Your task to perform on an android device: turn off smart reply in the gmail app Image 0: 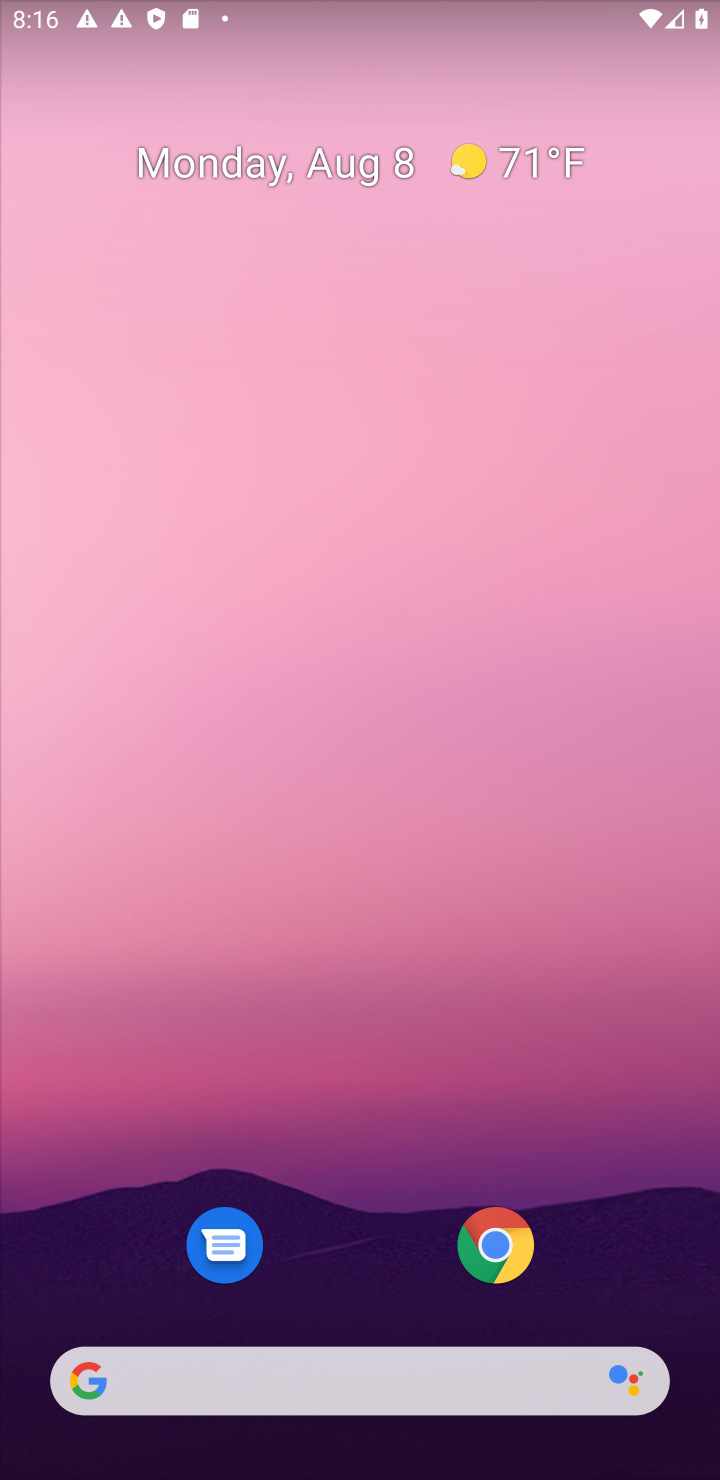
Step 0: drag from (285, 601) to (484, 22)
Your task to perform on an android device: turn off smart reply in the gmail app Image 1: 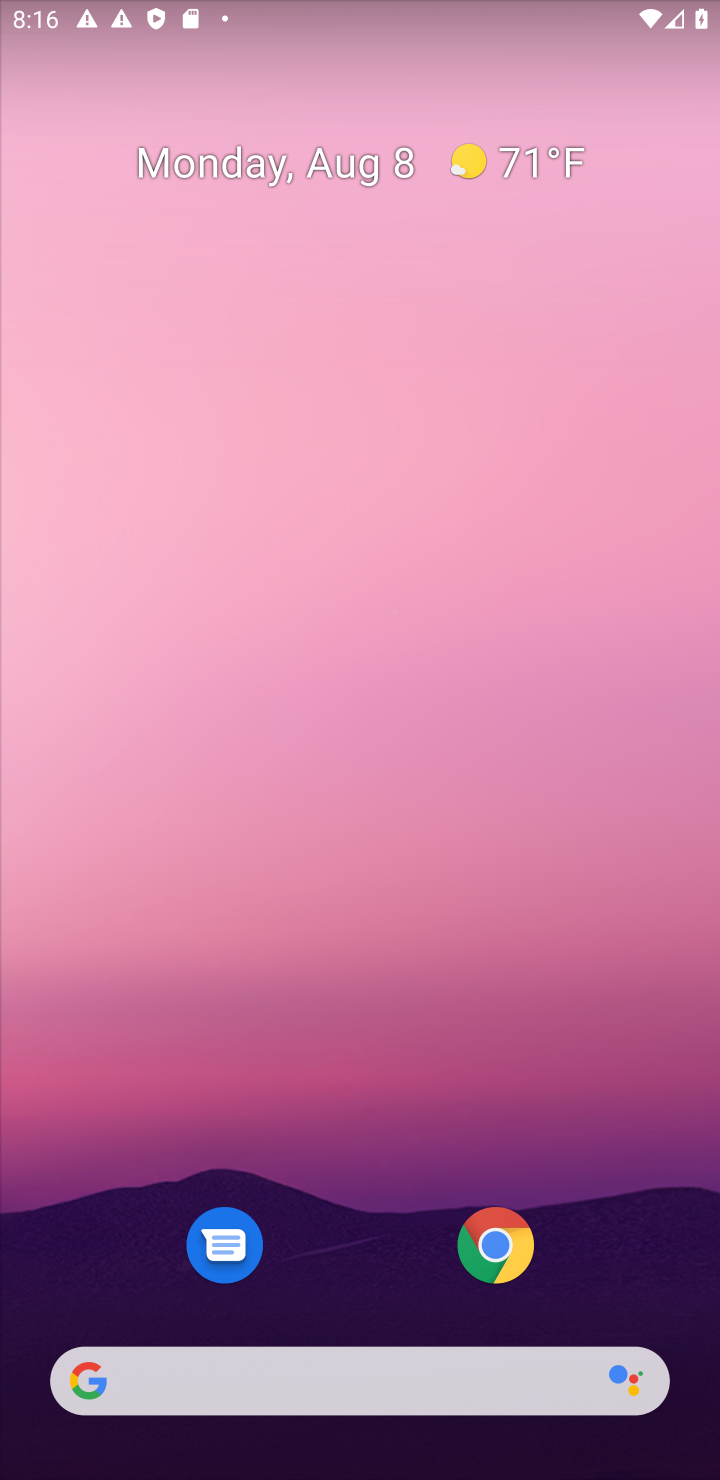
Step 1: drag from (340, 996) to (405, 4)
Your task to perform on an android device: turn off smart reply in the gmail app Image 2: 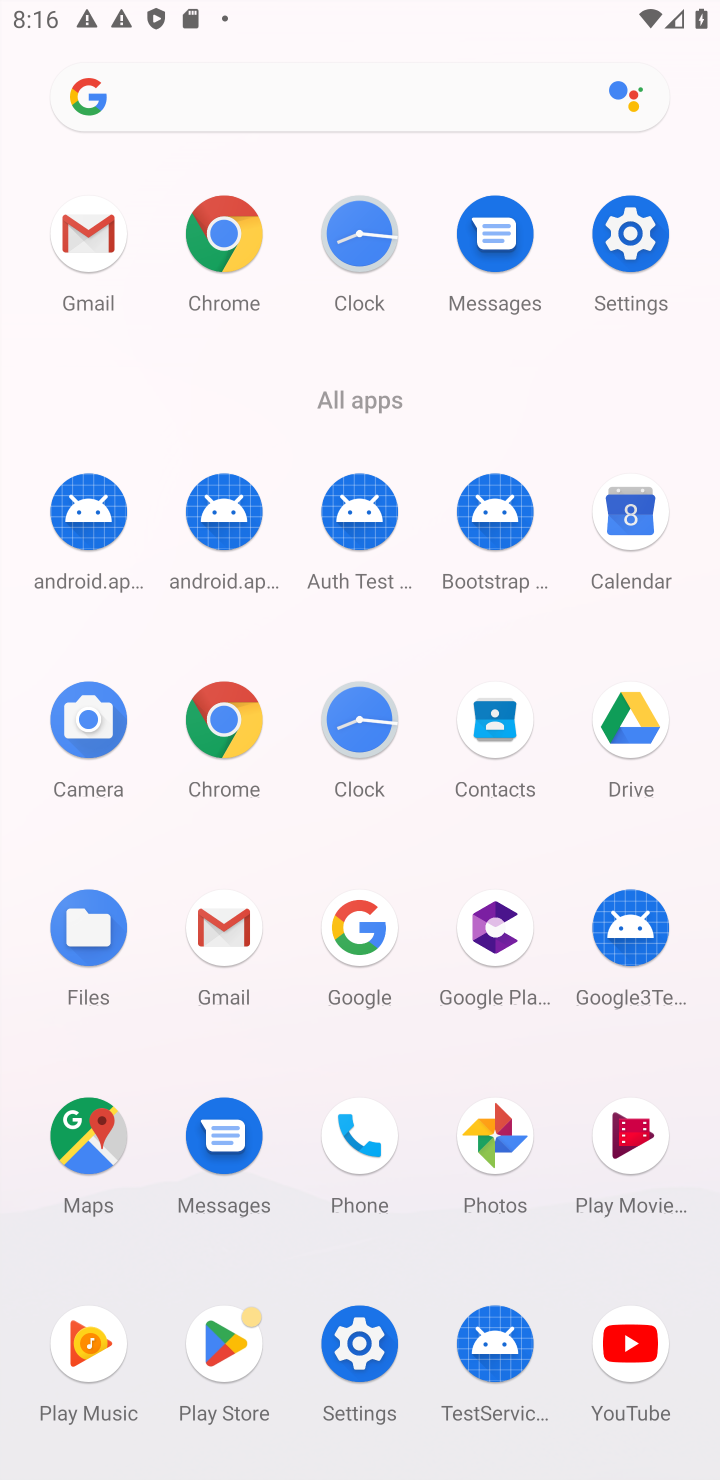
Step 2: click (220, 952)
Your task to perform on an android device: turn off smart reply in the gmail app Image 3: 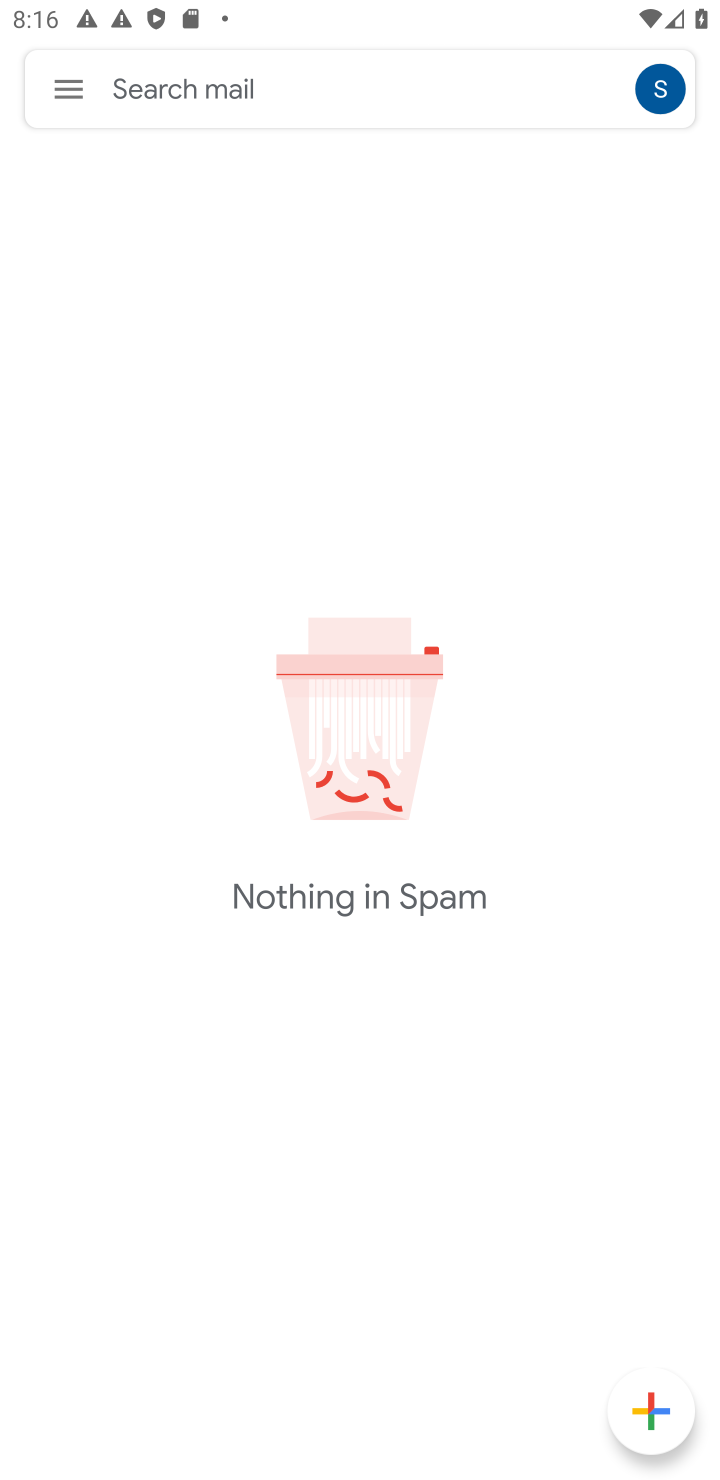
Step 3: click (56, 77)
Your task to perform on an android device: turn off smart reply in the gmail app Image 4: 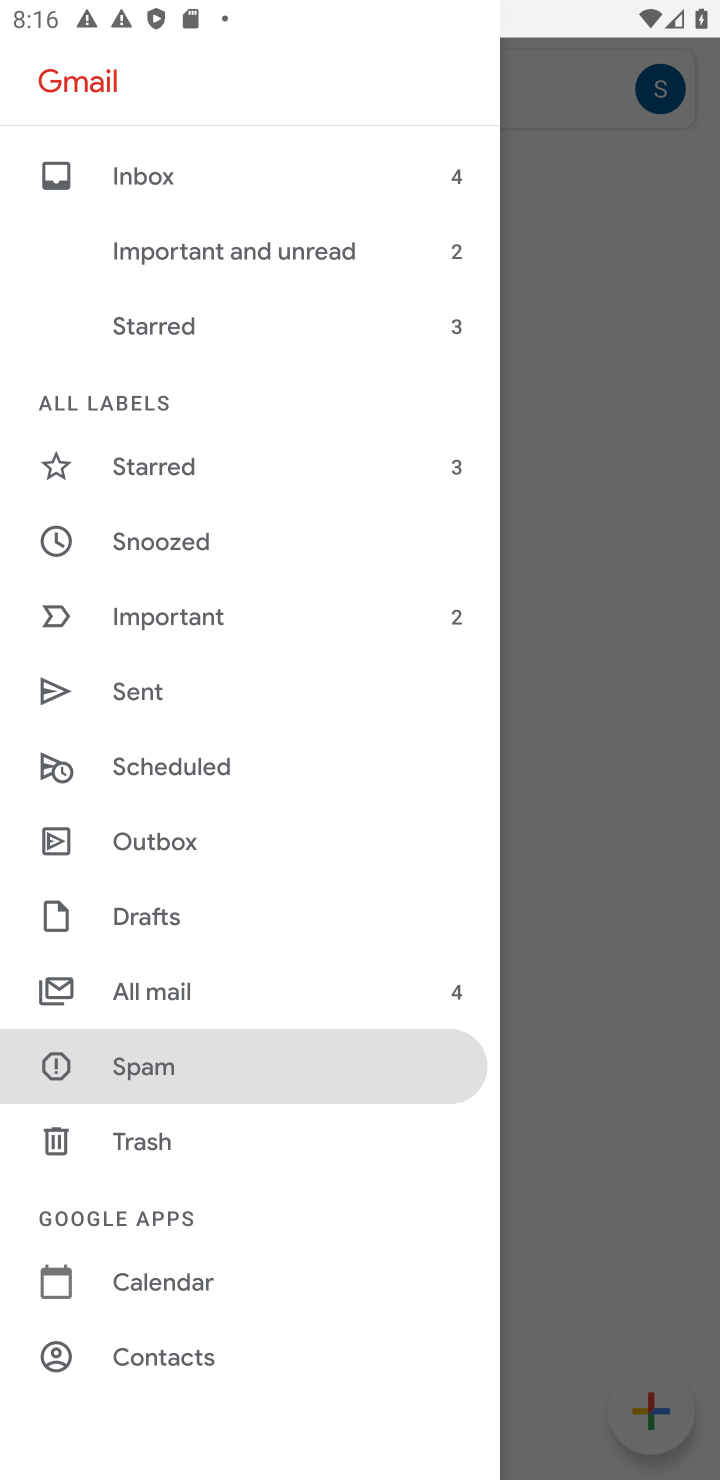
Step 4: drag from (133, 1144) to (166, 713)
Your task to perform on an android device: turn off smart reply in the gmail app Image 5: 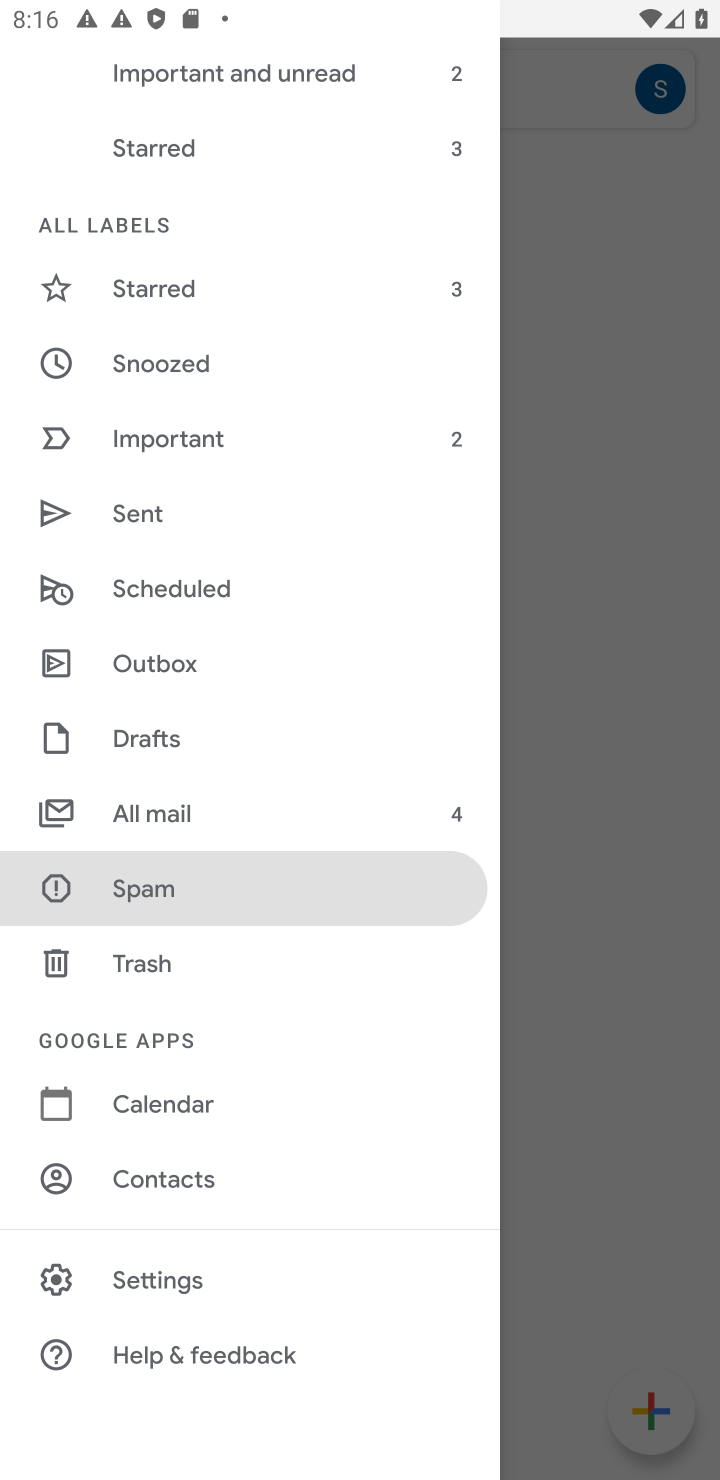
Step 5: click (133, 1264)
Your task to perform on an android device: turn off smart reply in the gmail app Image 6: 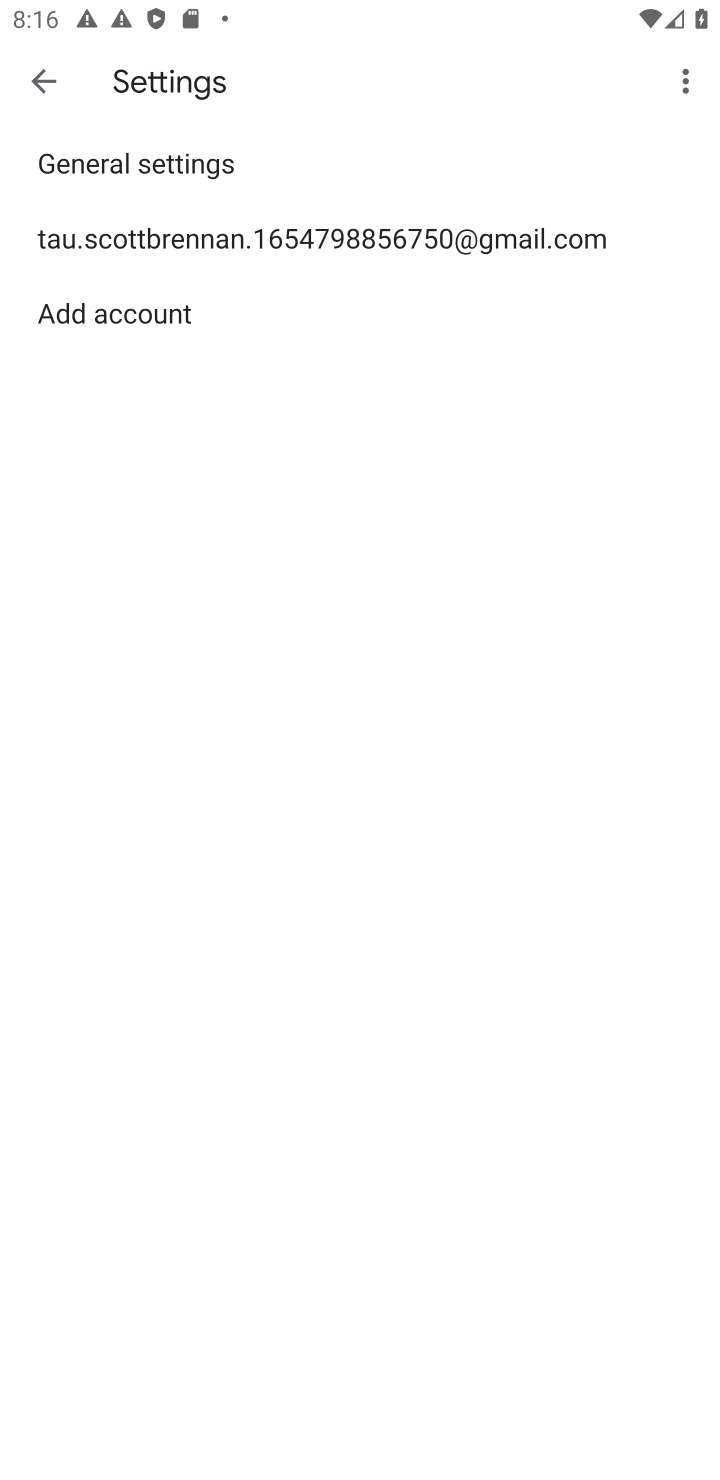
Step 6: click (253, 229)
Your task to perform on an android device: turn off smart reply in the gmail app Image 7: 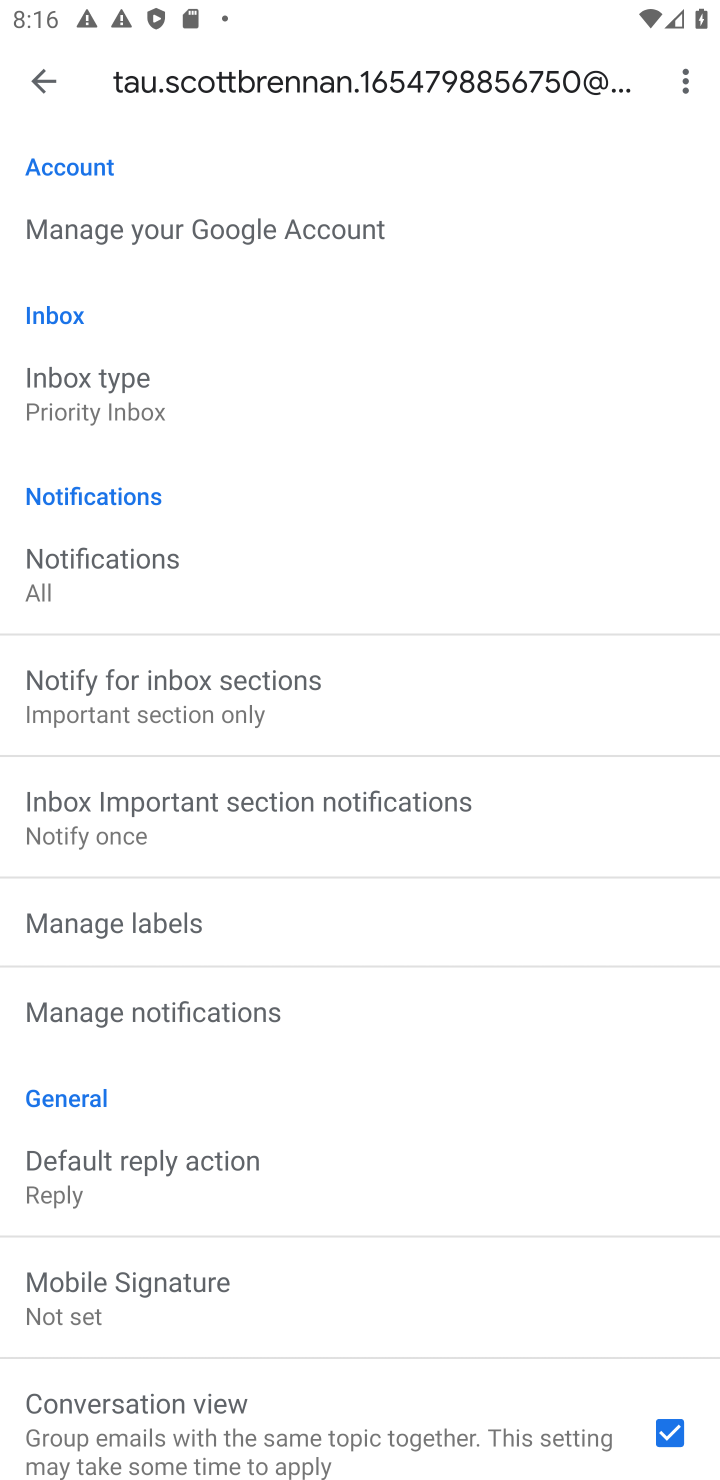
Step 7: drag from (379, 1246) to (384, 618)
Your task to perform on an android device: turn off smart reply in the gmail app Image 8: 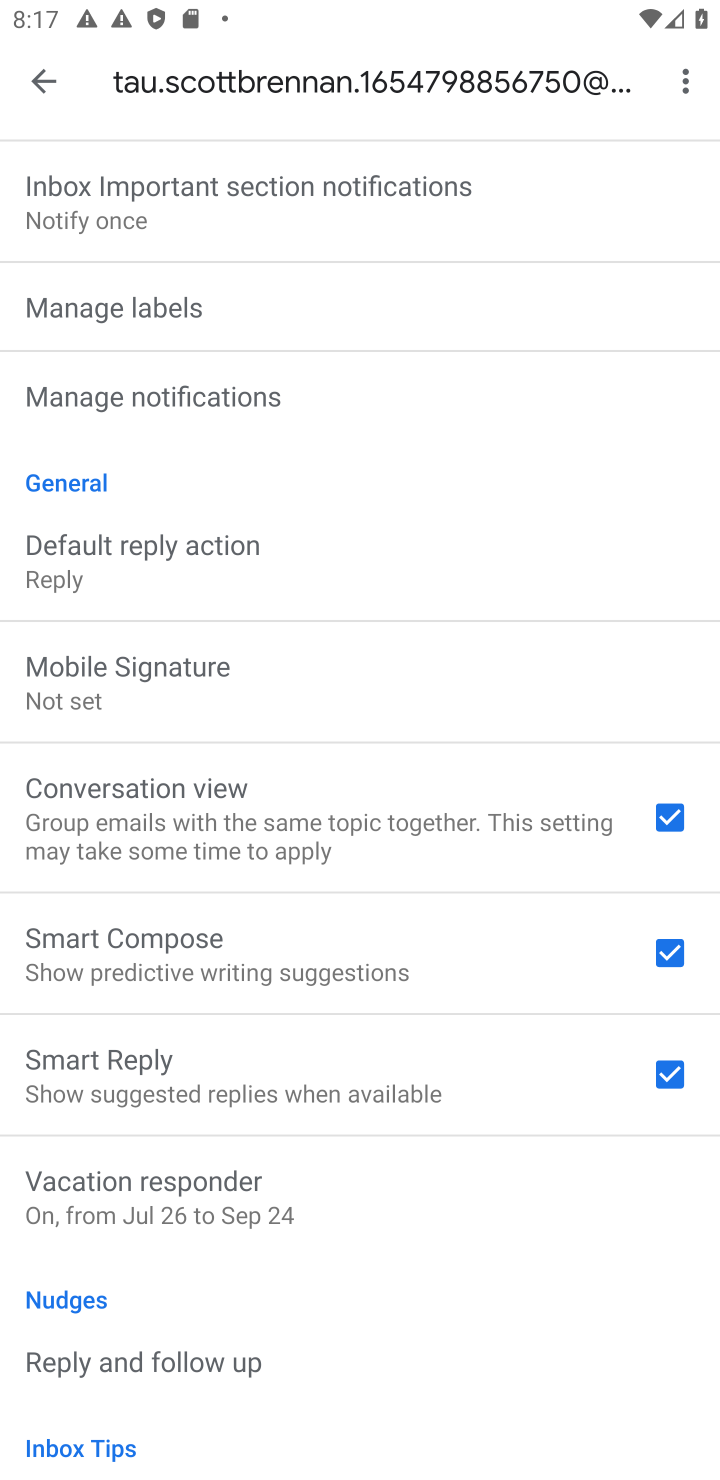
Step 8: click (611, 1072)
Your task to perform on an android device: turn off smart reply in the gmail app Image 9: 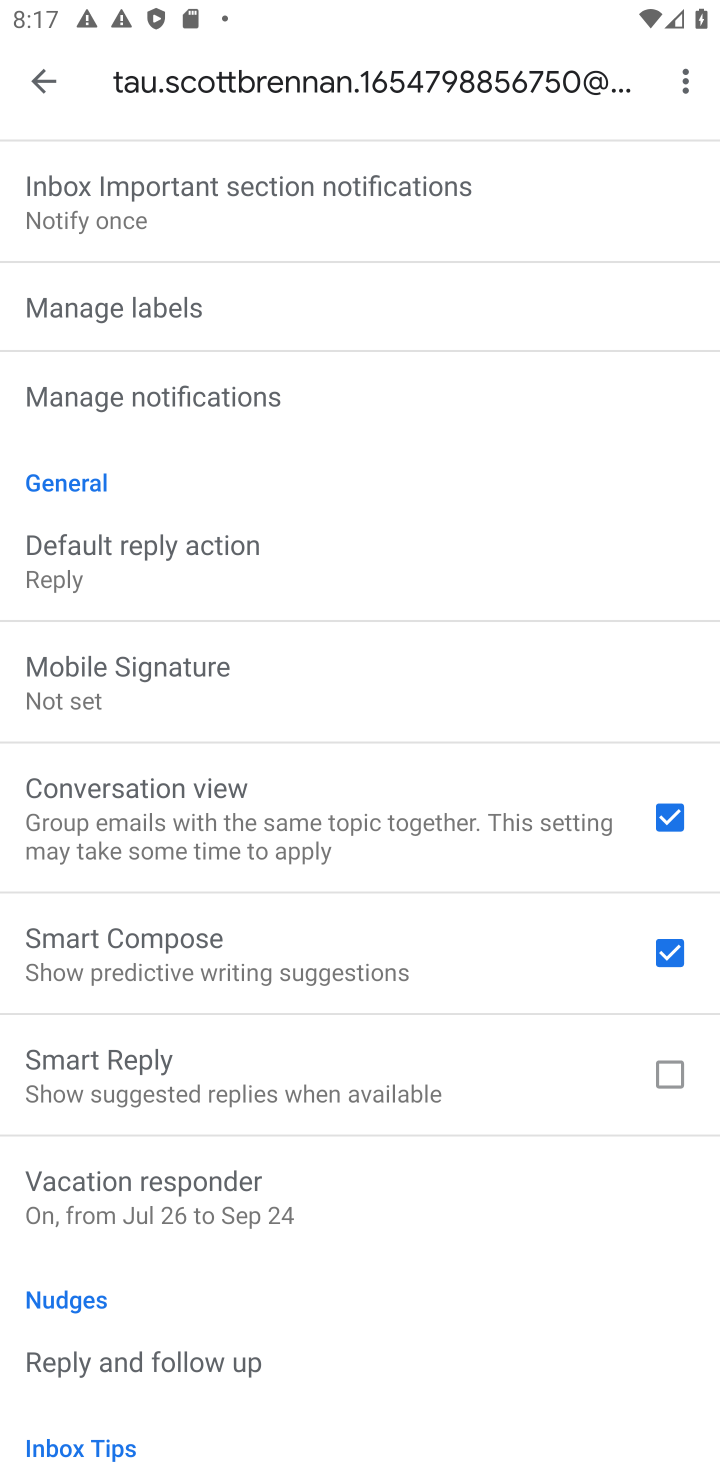
Step 9: task complete